Your task to perform on an android device: Is it going to rain tomorrow? Image 0: 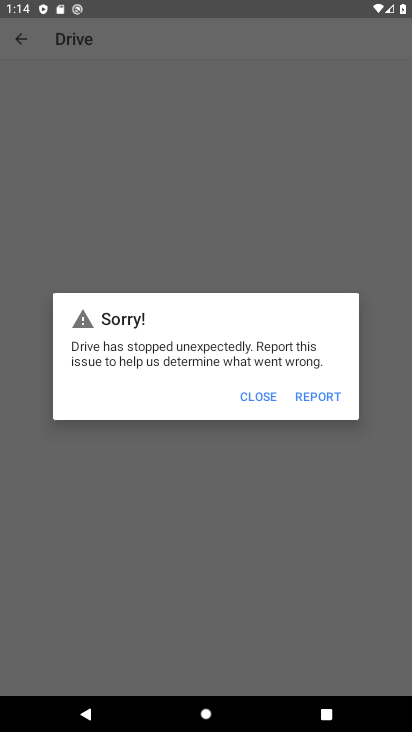
Step 0: press back button
Your task to perform on an android device: Is it going to rain tomorrow? Image 1: 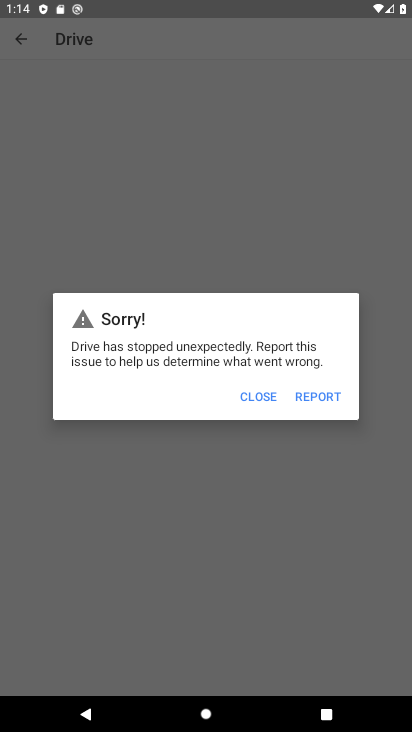
Step 1: press home button
Your task to perform on an android device: Is it going to rain tomorrow? Image 2: 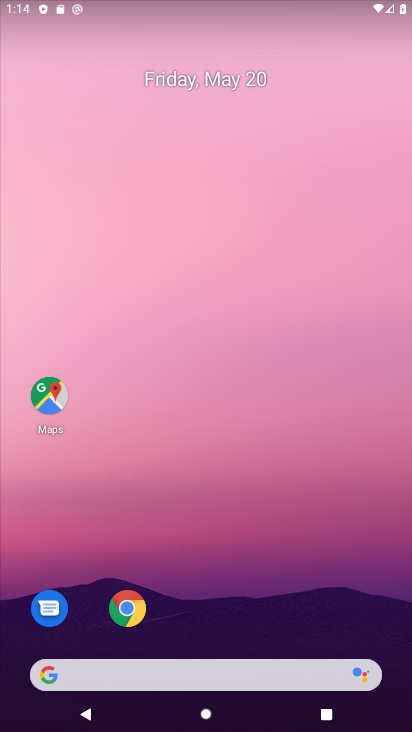
Step 2: click (188, 680)
Your task to perform on an android device: Is it going to rain tomorrow? Image 3: 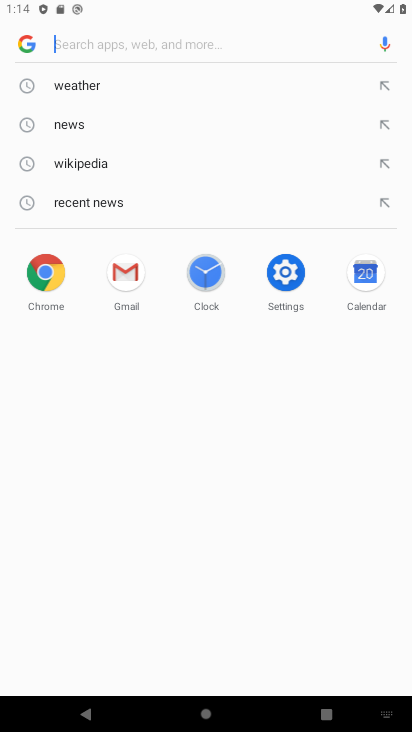
Step 3: click (93, 89)
Your task to perform on an android device: Is it going to rain tomorrow? Image 4: 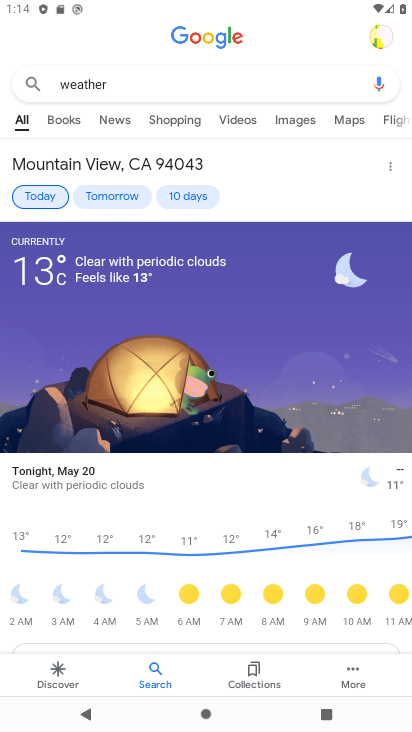
Step 4: click (118, 185)
Your task to perform on an android device: Is it going to rain tomorrow? Image 5: 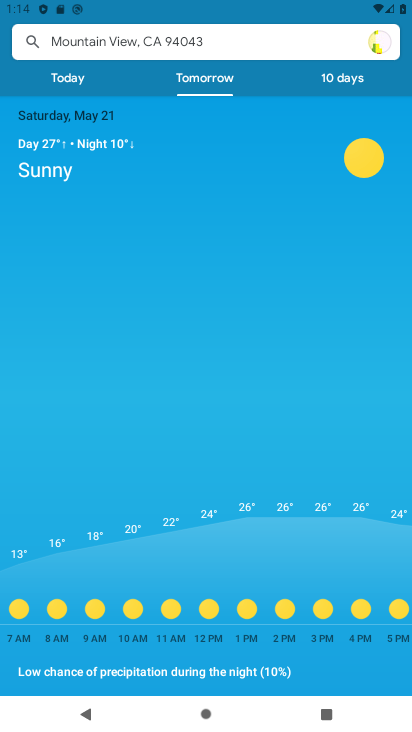
Step 5: task complete